Your task to perform on an android device: turn off smart reply in the gmail app Image 0: 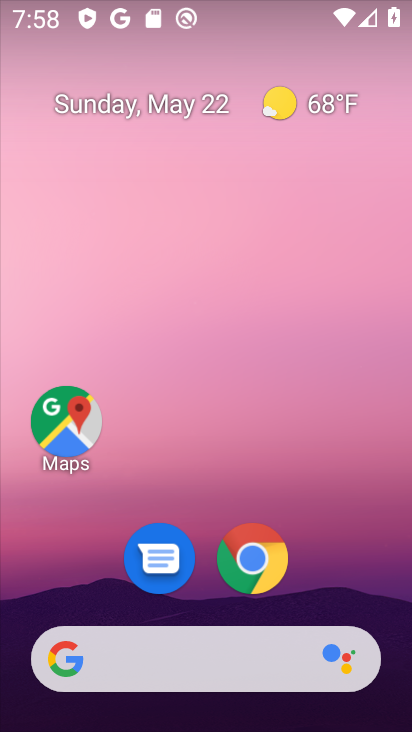
Step 0: drag from (337, 583) to (325, 233)
Your task to perform on an android device: turn off smart reply in the gmail app Image 1: 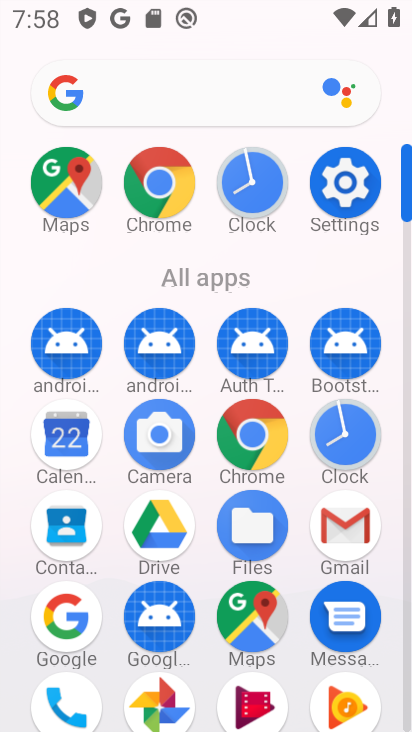
Step 1: click (329, 516)
Your task to perform on an android device: turn off smart reply in the gmail app Image 2: 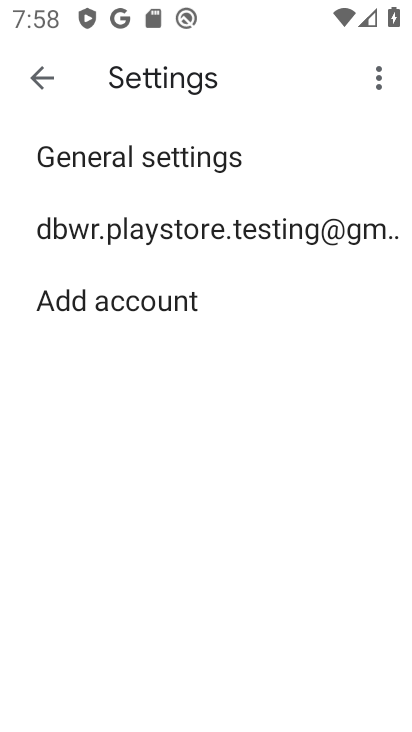
Step 2: click (56, 61)
Your task to perform on an android device: turn off smart reply in the gmail app Image 3: 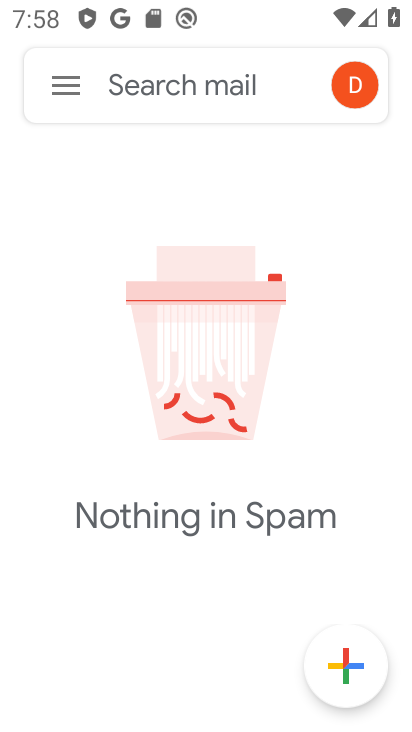
Step 3: click (73, 70)
Your task to perform on an android device: turn off smart reply in the gmail app Image 4: 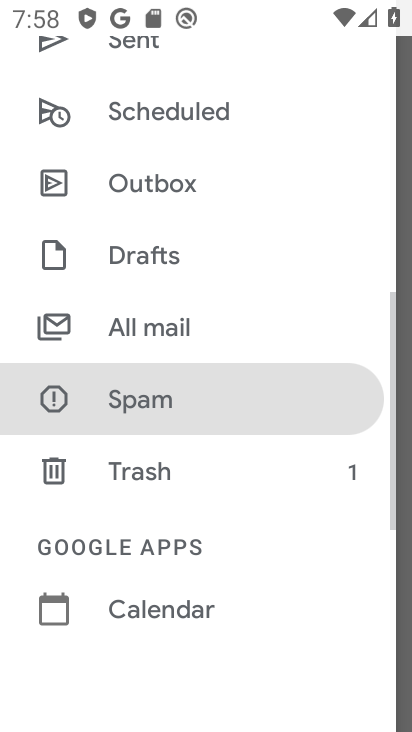
Step 4: drag from (197, 574) to (290, 177)
Your task to perform on an android device: turn off smart reply in the gmail app Image 5: 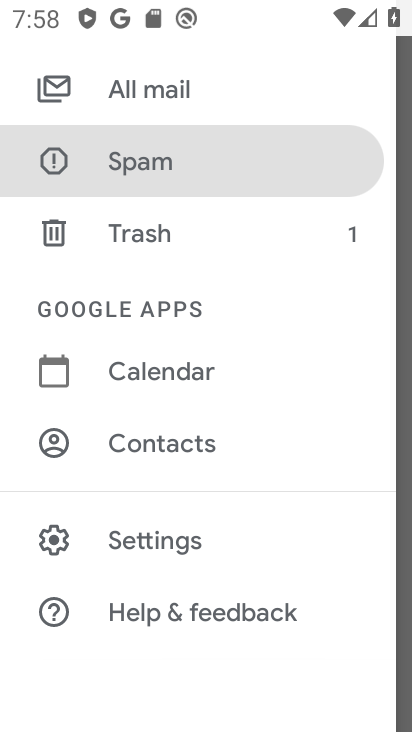
Step 5: click (204, 533)
Your task to perform on an android device: turn off smart reply in the gmail app Image 6: 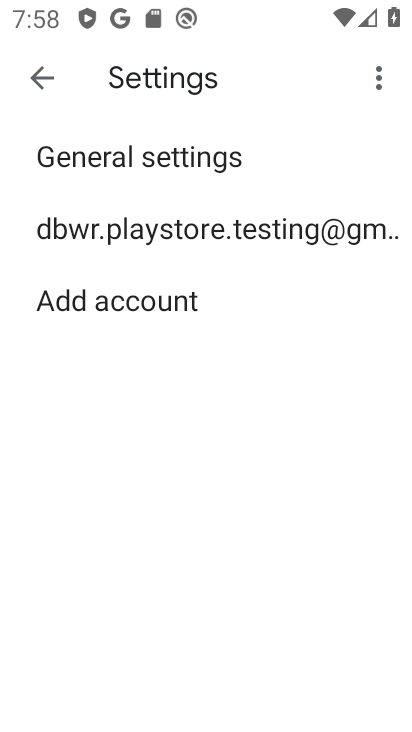
Step 6: click (178, 215)
Your task to perform on an android device: turn off smart reply in the gmail app Image 7: 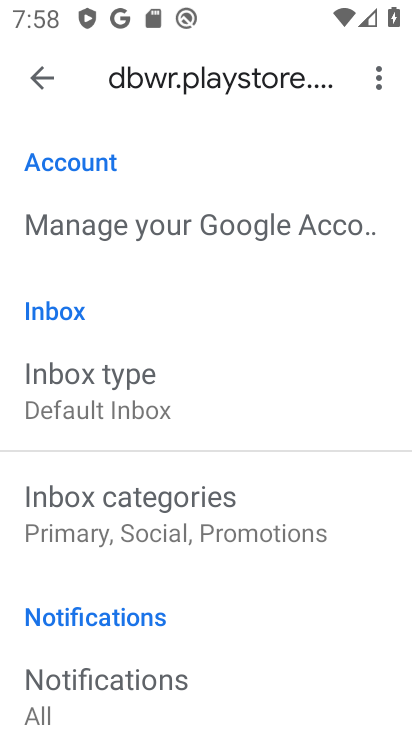
Step 7: drag from (293, 615) to (274, 149)
Your task to perform on an android device: turn off smart reply in the gmail app Image 8: 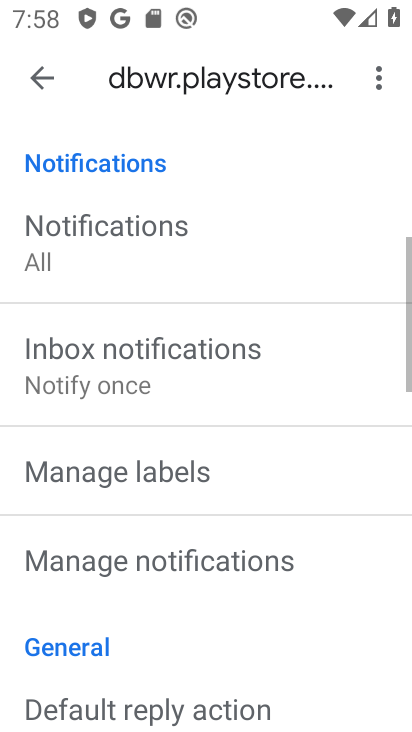
Step 8: drag from (179, 582) to (245, 178)
Your task to perform on an android device: turn off smart reply in the gmail app Image 9: 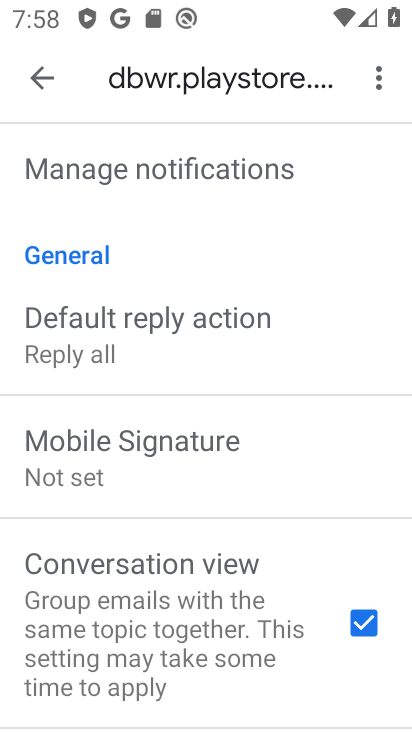
Step 9: drag from (248, 624) to (307, 284)
Your task to perform on an android device: turn off smart reply in the gmail app Image 10: 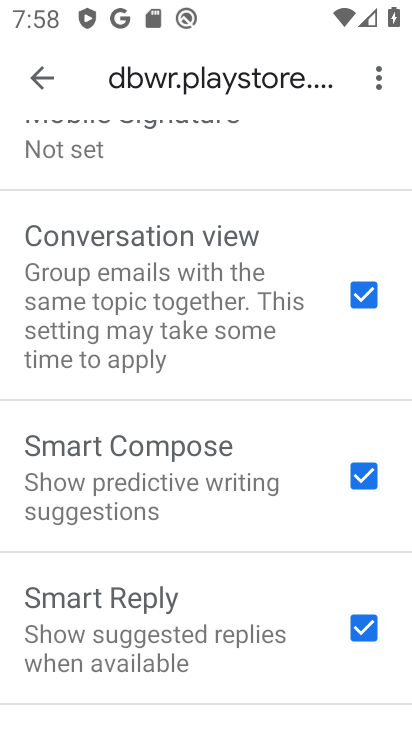
Step 10: click (357, 622)
Your task to perform on an android device: turn off smart reply in the gmail app Image 11: 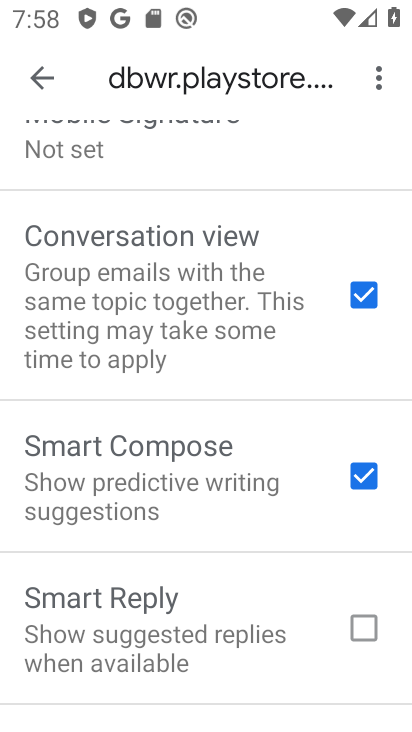
Step 11: task complete